Your task to perform on an android device: turn off notifications in google photos Image 0: 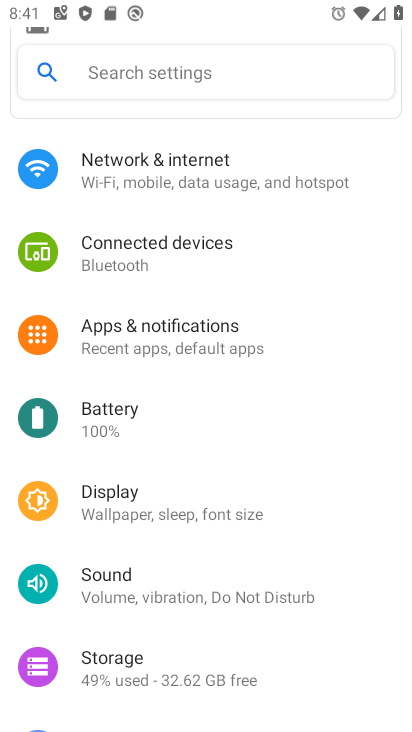
Step 0: press home button
Your task to perform on an android device: turn off notifications in google photos Image 1: 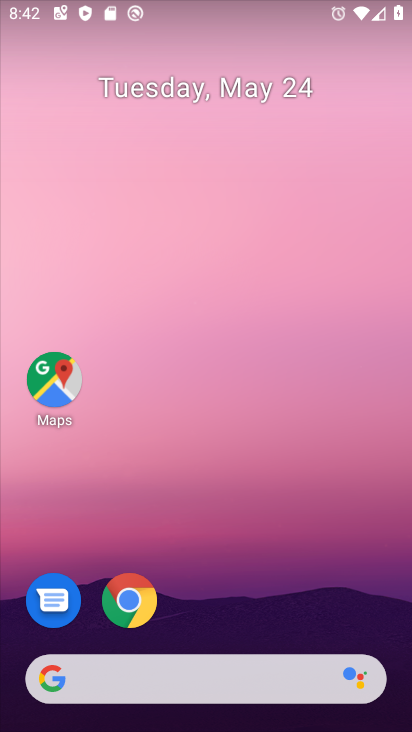
Step 1: drag from (190, 718) to (209, 103)
Your task to perform on an android device: turn off notifications in google photos Image 2: 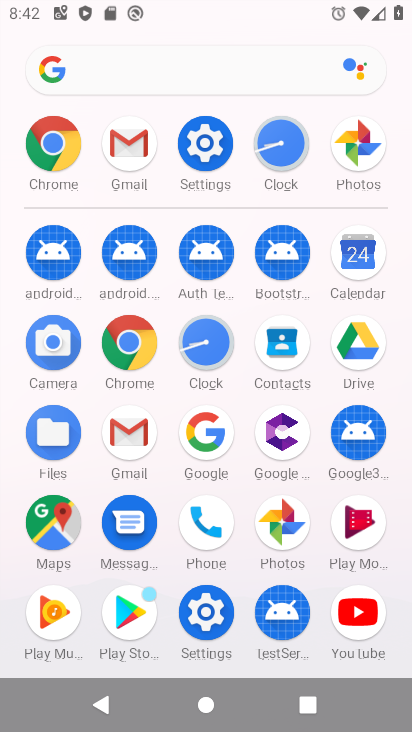
Step 2: click (288, 511)
Your task to perform on an android device: turn off notifications in google photos Image 3: 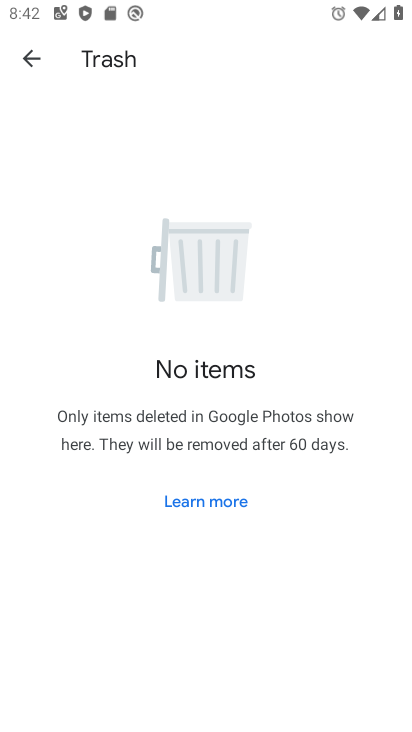
Step 3: click (27, 56)
Your task to perform on an android device: turn off notifications in google photos Image 4: 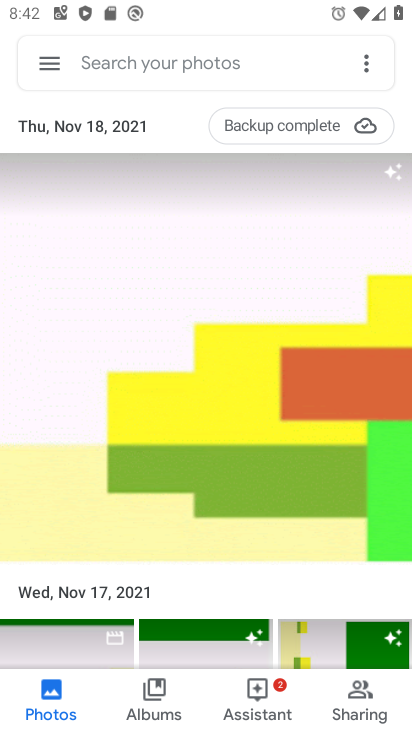
Step 4: click (48, 61)
Your task to perform on an android device: turn off notifications in google photos Image 5: 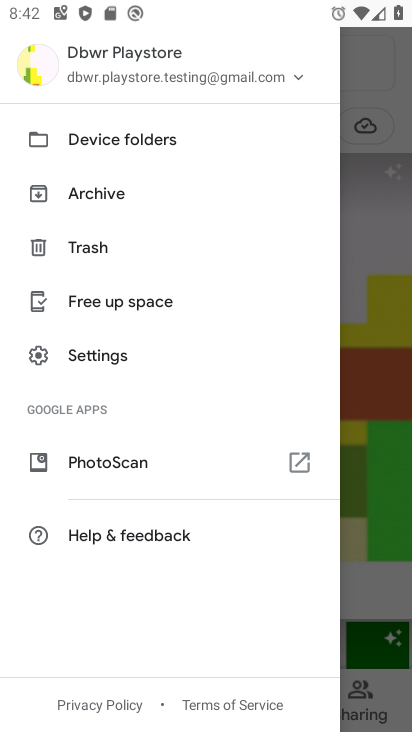
Step 5: click (103, 354)
Your task to perform on an android device: turn off notifications in google photos Image 6: 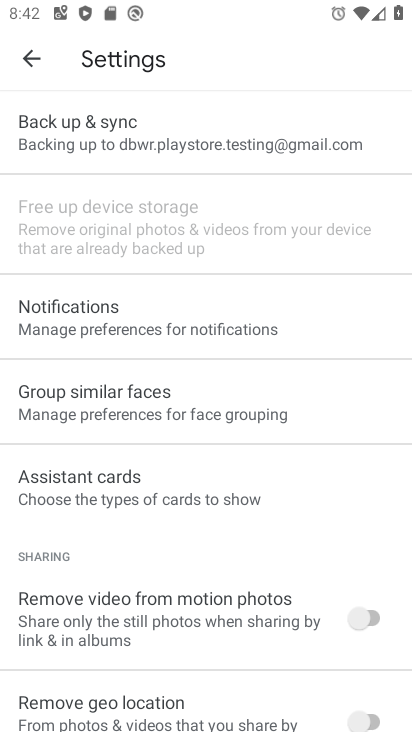
Step 6: click (113, 320)
Your task to perform on an android device: turn off notifications in google photos Image 7: 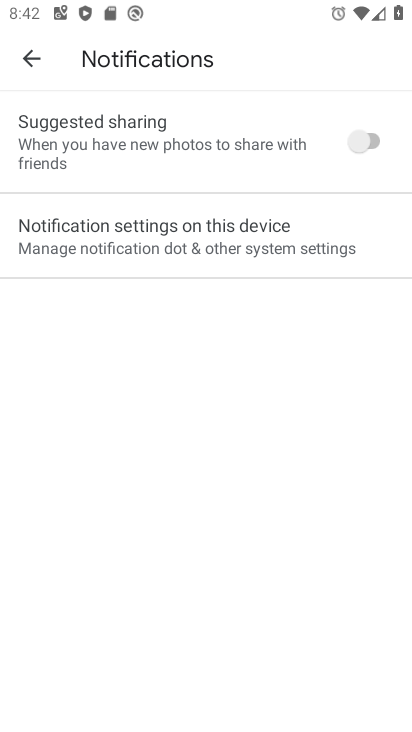
Step 7: click (303, 239)
Your task to perform on an android device: turn off notifications in google photos Image 8: 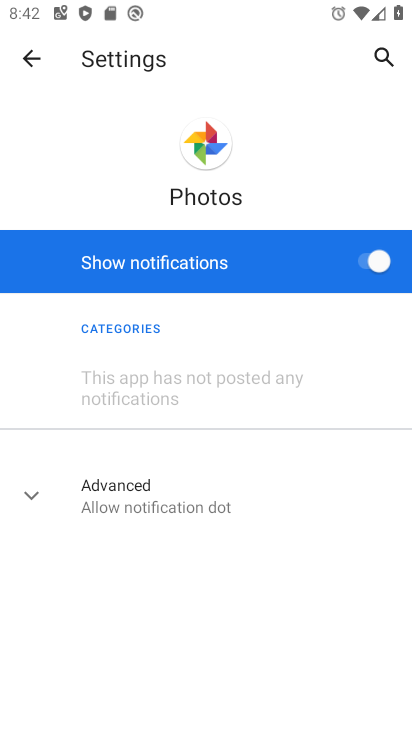
Step 8: click (360, 257)
Your task to perform on an android device: turn off notifications in google photos Image 9: 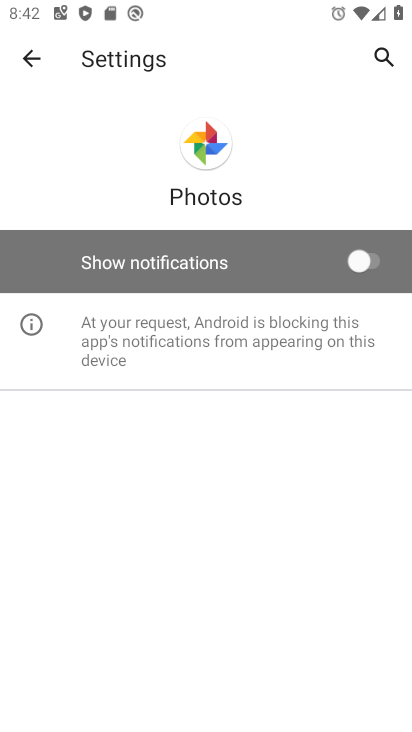
Step 9: task complete